Your task to perform on an android device: open chrome and create a bookmark for the current page Image 0: 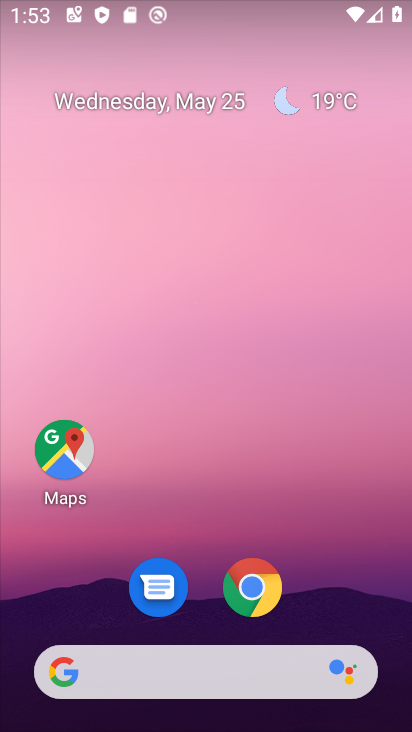
Step 0: click (253, 589)
Your task to perform on an android device: open chrome and create a bookmark for the current page Image 1: 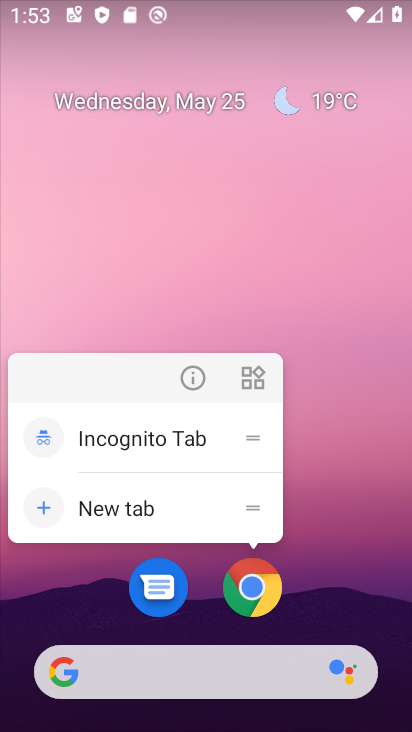
Step 1: click (262, 589)
Your task to perform on an android device: open chrome and create a bookmark for the current page Image 2: 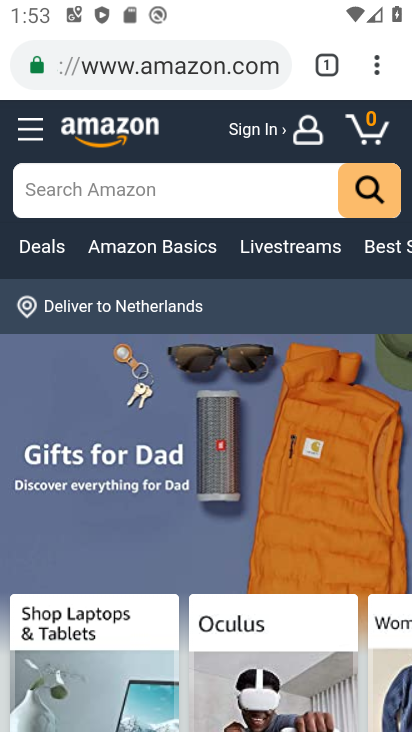
Step 2: click (368, 66)
Your task to perform on an android device: open chrome and create a bookmark for the current page Image 3: 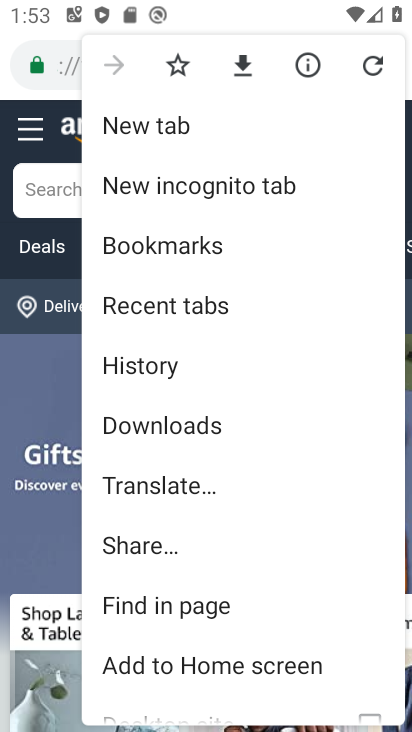
Step 3: drag from (259, 596) to (279, 317)
Your task to perform on an android device: open chrome and create a bookmark for the current page Image 4: 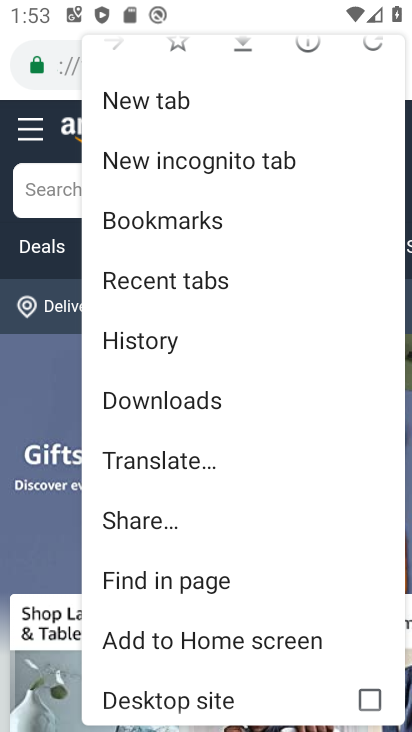
Step 4: drag from (285, 110) to (279, 371)
Your task to perform on an android device: open chrome and create a bookmark for the current page Image 5: 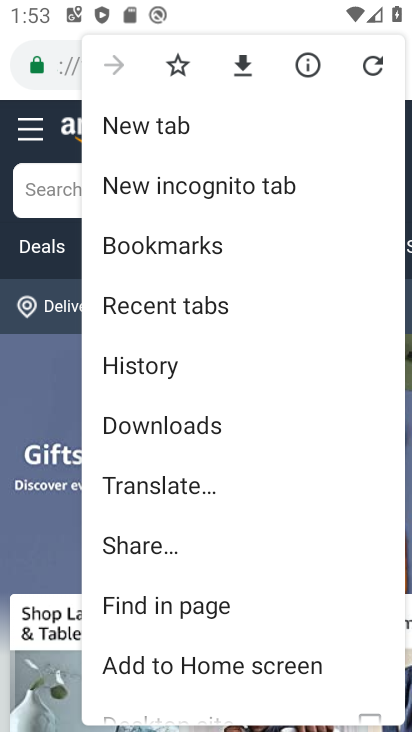
Step 5: click (175, 69)
Your task to perform on an android device: open chrome and create a bookmark for the current page Image 6: 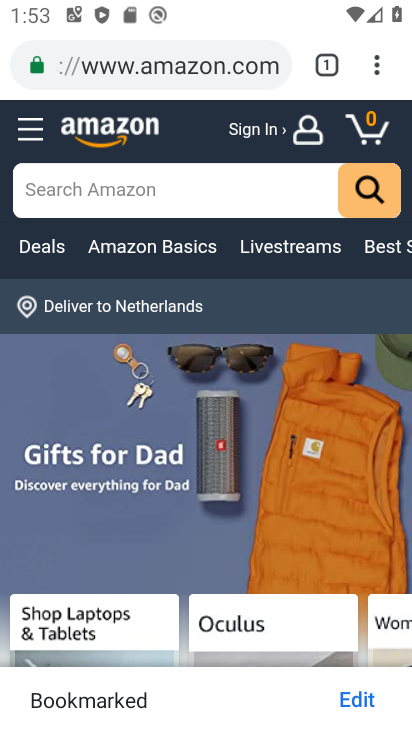
Step 6: task complete